Your task to perform on an android device: set the stopwatch Image 0: 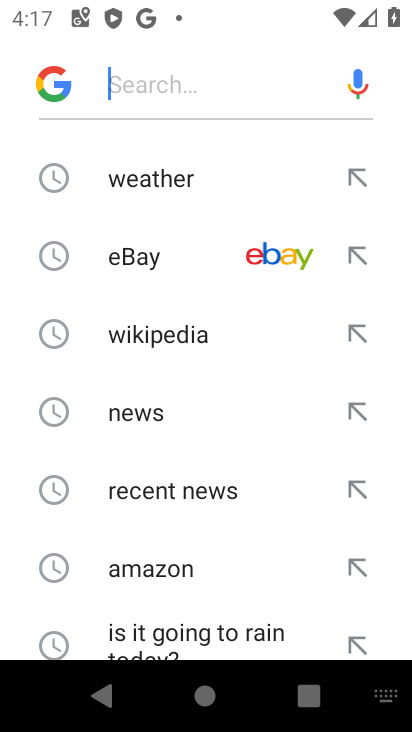
Step 0: press home button
Your task to perform on an android device: set the stopwatch Image 1: 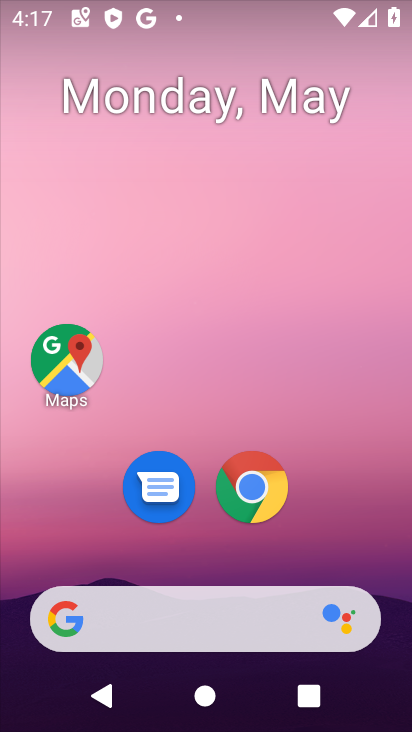
Step 1: drag from (358, 564) to (368, 22)
Your task to perform on an android device: set the stopwatch Image 2: 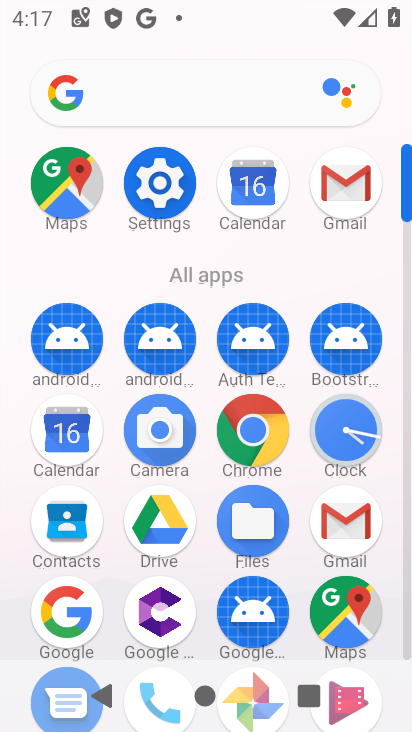
Step 2: click (339, 429)
Your task to perform on an android device: set the stopwatch Image 3: 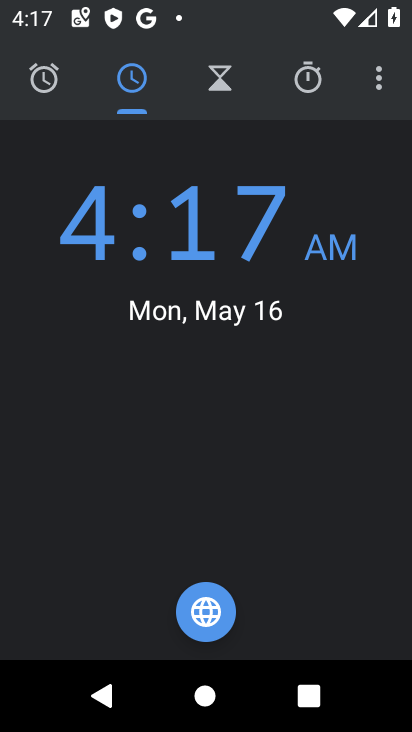
Step 3: click (316, 79)
Your task to perform on an android device: set the stopwatch Image 4: 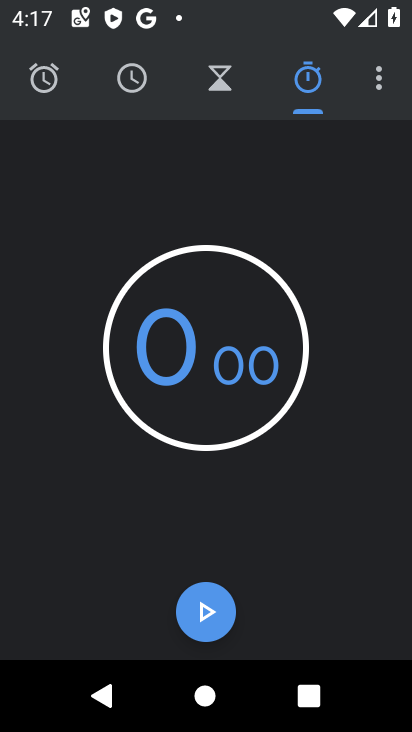
Step 4: click (210, 613)
Your task to perform on an android device: set the stopwatch Image 5: 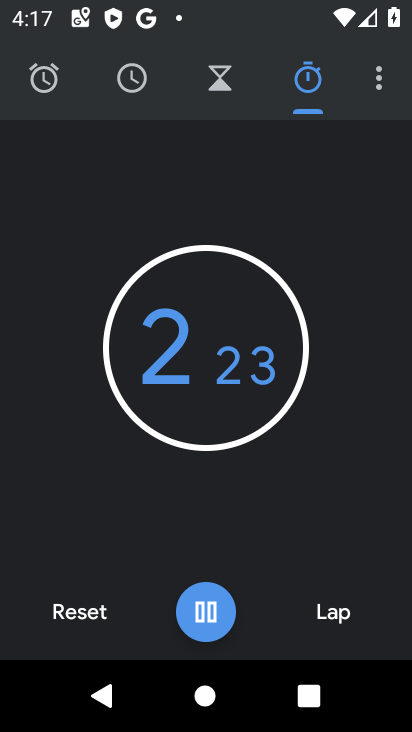
Step 5: click (210, 613)
Your task to perform on an android device: set the stopwatch Image 6: 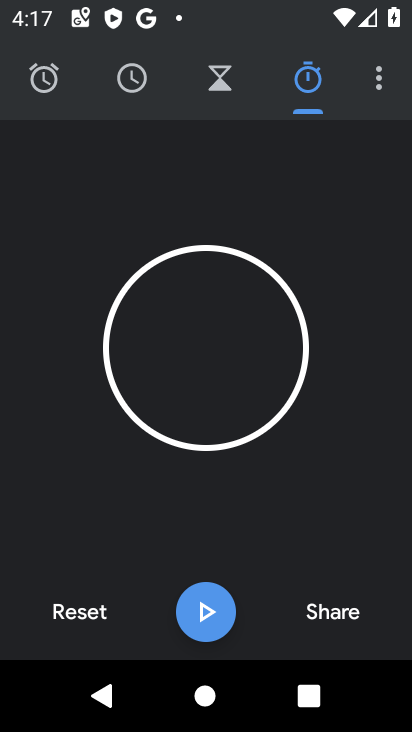
Step 6: task complete